Your task to perform on an android device: What's on my calendar today? Image 0: 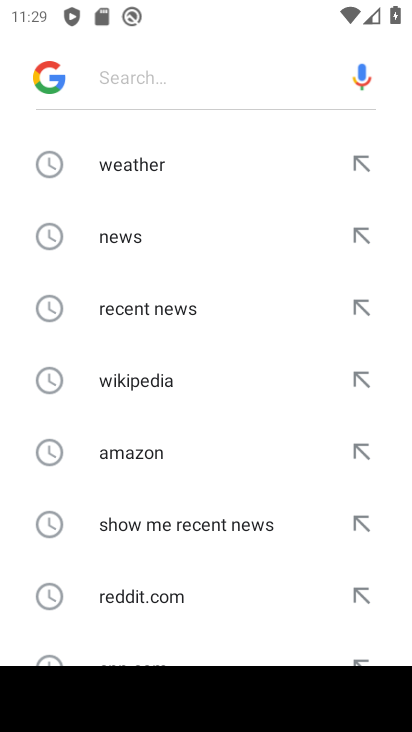
Step 0: press home button
Your task to perform on an android device: What's on my calendar today? Image 1: 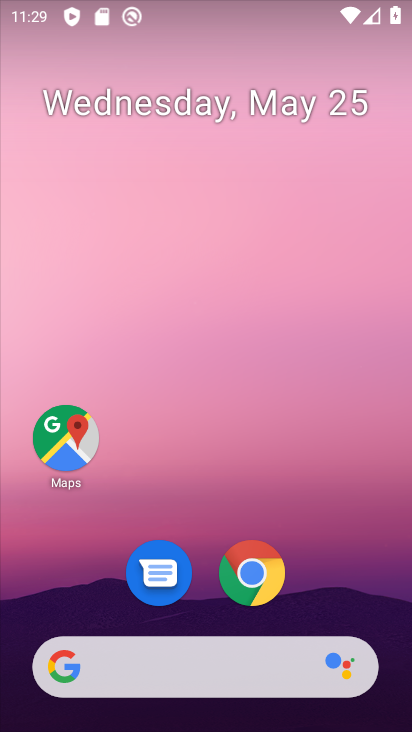
Step 1: drag from (215, 629) to (182, 154)
Your task to perform on an android device: What's on my calendar today? Image 2: 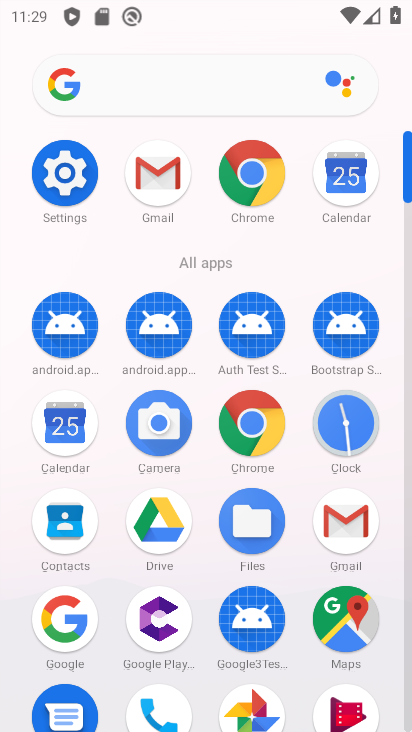
Step 2: click (60, 421)
Your task to perform on an android device: What's on my calendar today? Image 3: 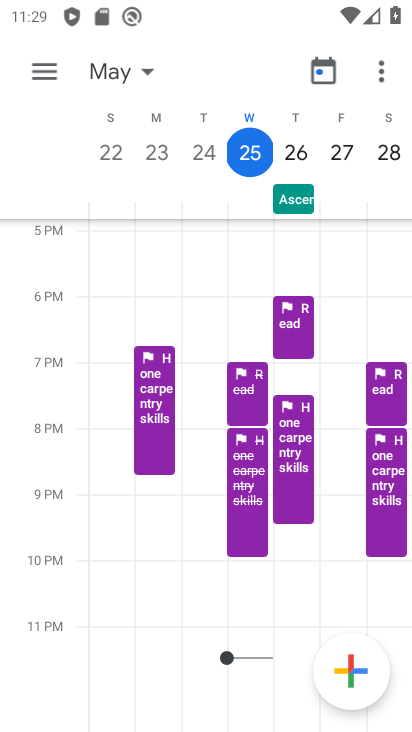
Step 3: click (33, 67)
Your task to perform on an android device: What's on my calendar today? Image 4: 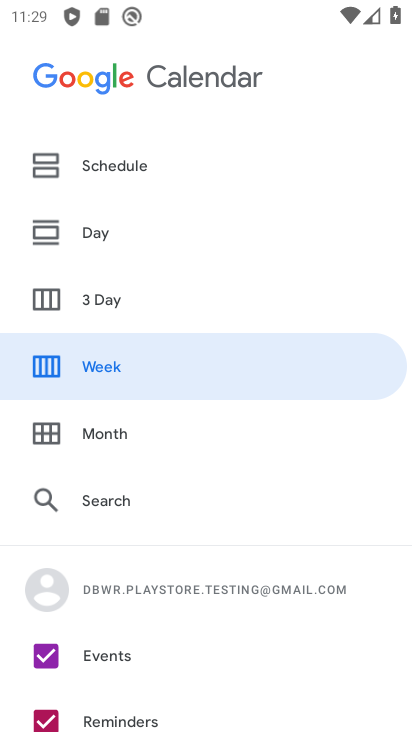
Step 4: click (90, 155)
Your task to perform on an android device: What's on my calendar today? Image 5: 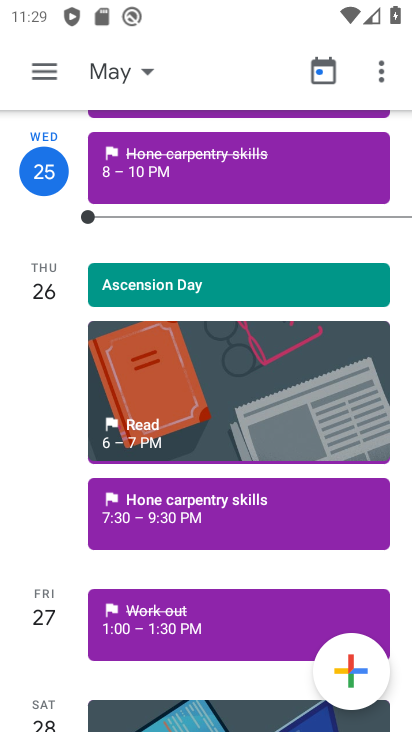
Step 5: task complete